Your task to perform on an android device: Show me popular videos on Youtube Image 0: 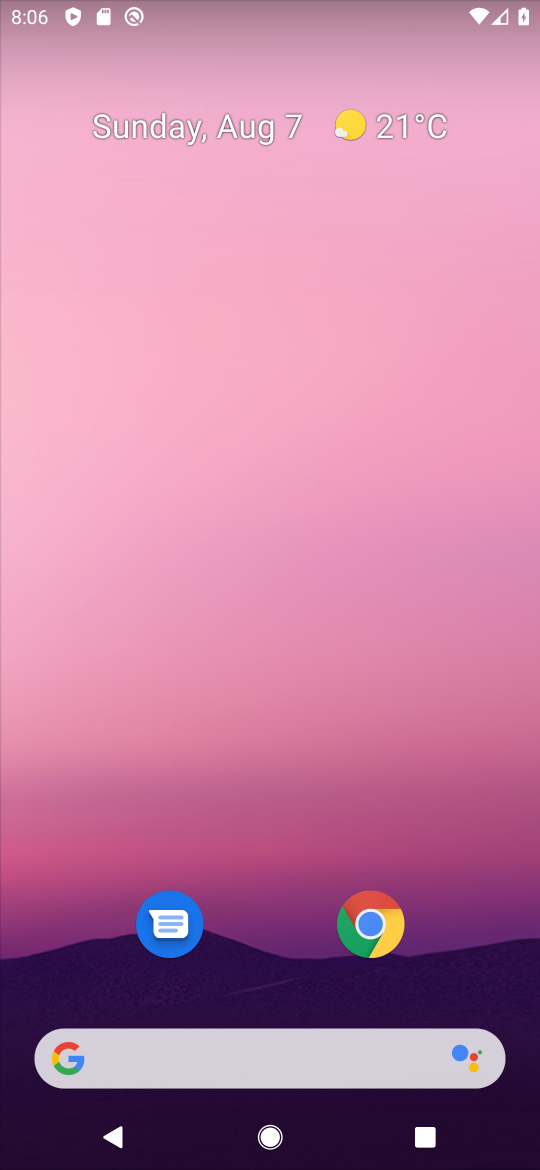
Step 0: drag from (281, 861) to (309, 0)
Your task to perform on an android device: Show me popular videos on Youtube Image 1: 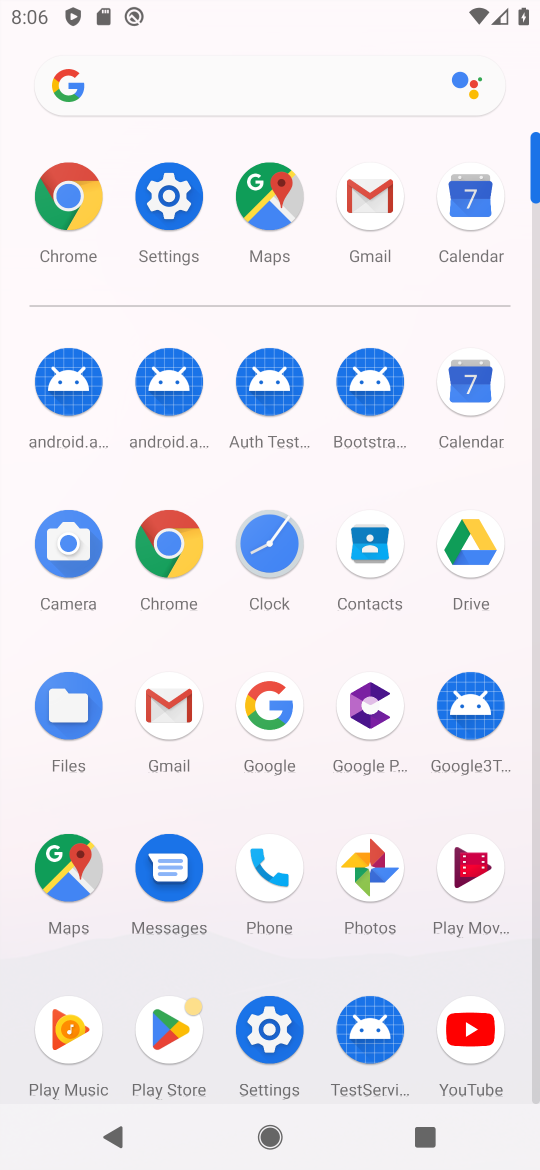
Step 1: drag from (331, 736) to (314, 349)
Your task to perform on an android device: Show me popular videos on Youtube Image 2: 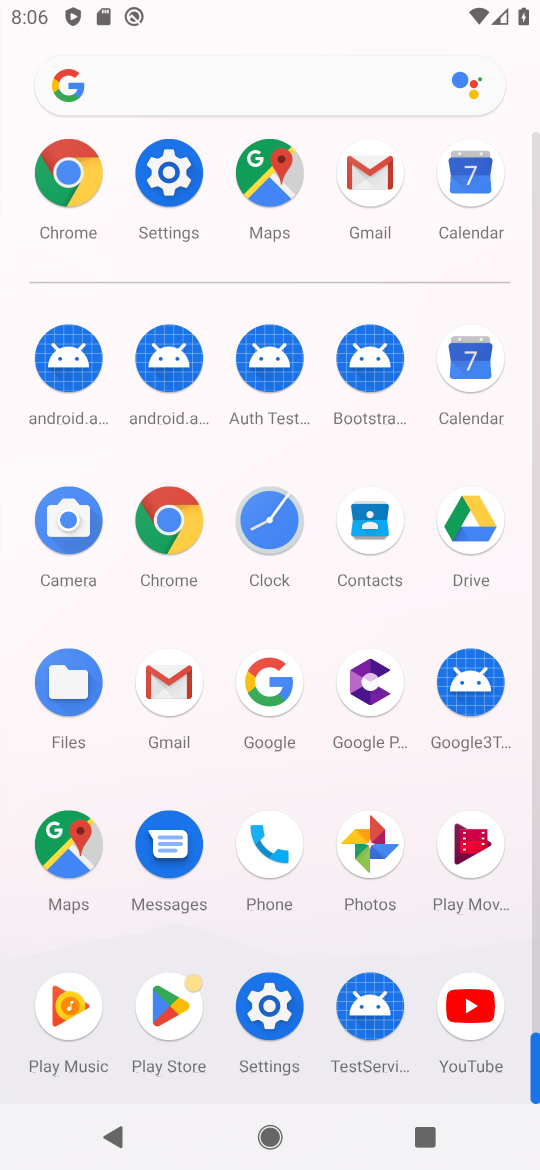
Step 2: click (469, 1005)
Your task to perform on an android device: Show me popular videos on Youtube Image 3: 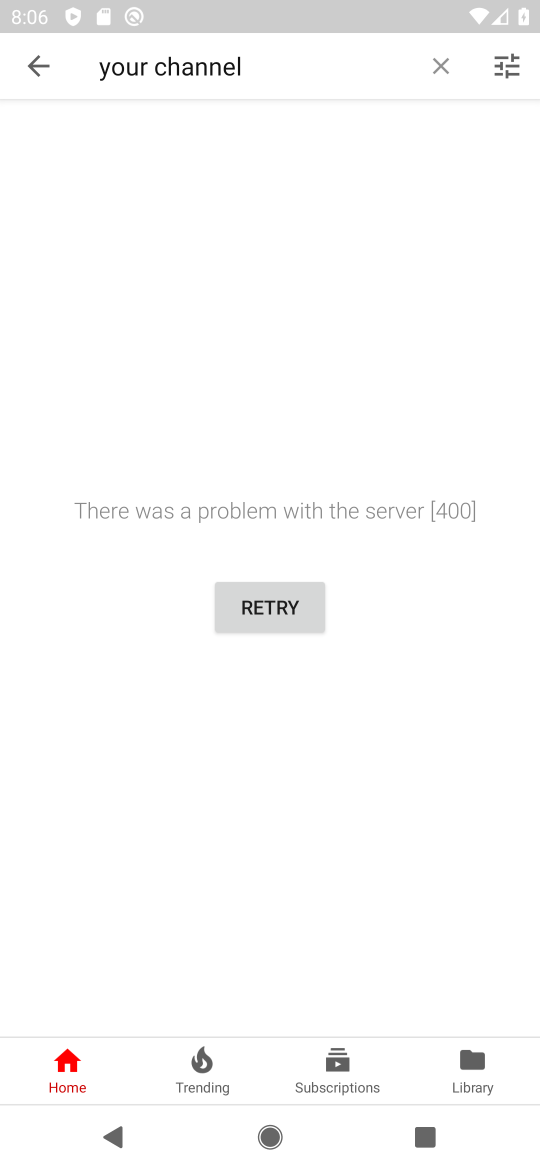
Step 3: click (440, 57)
Your task to perform on an android device: Show me popular videos on Youtube Image 4: 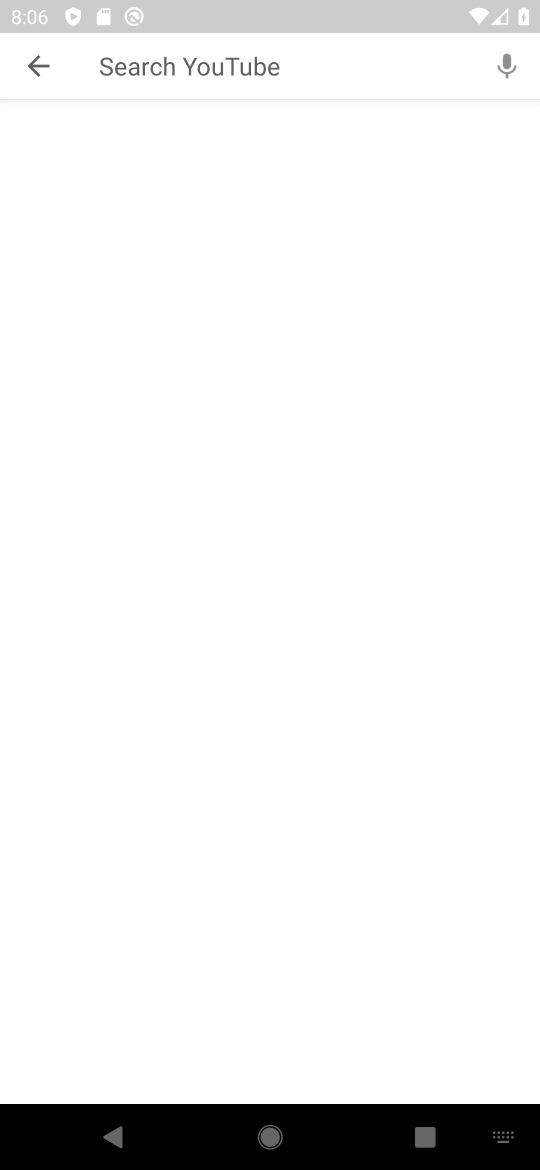
Step 4: type "popular videos"
Your task to perform on an android device: Show me popular videos on Youtube Image 5: 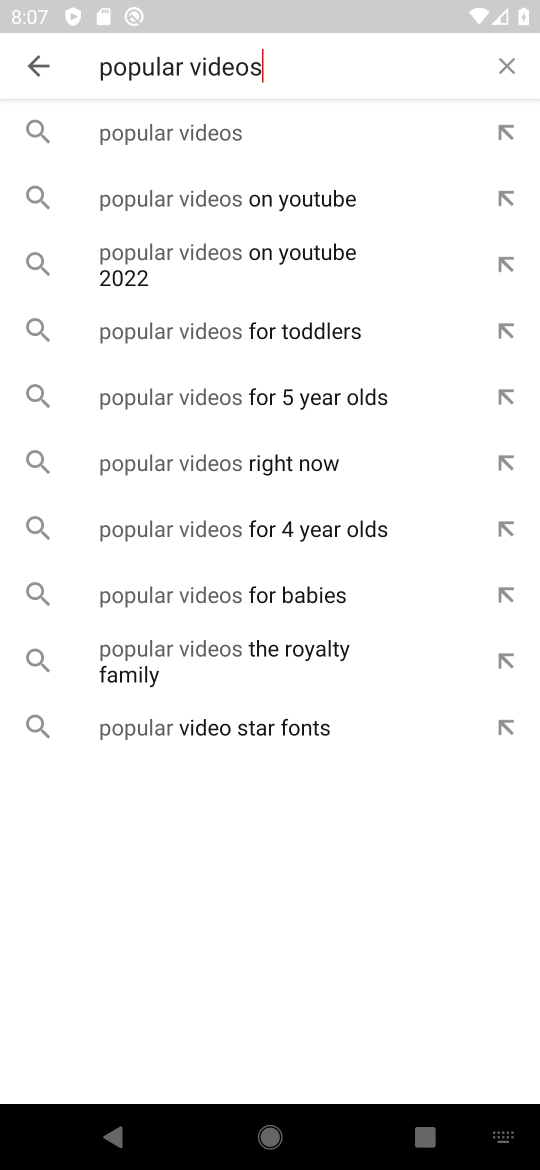
Step 5: click (301, 197)
Your task to perform on an android device: Show me popular videos on Youtube Image 6: 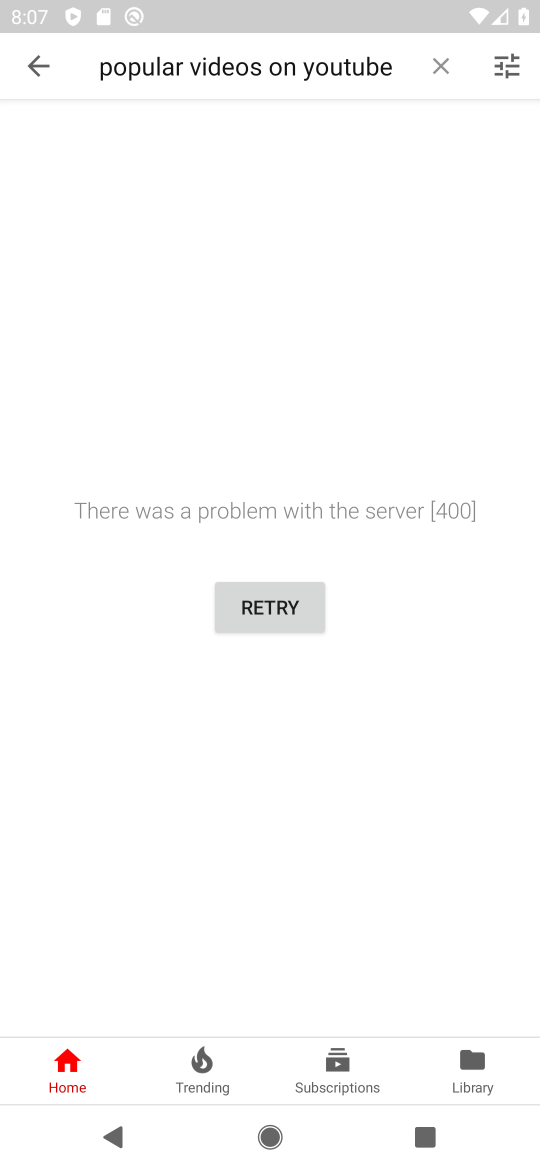
Step 6: task complete